Your task to perform on an android device: Open Yahoo.com Image 0: 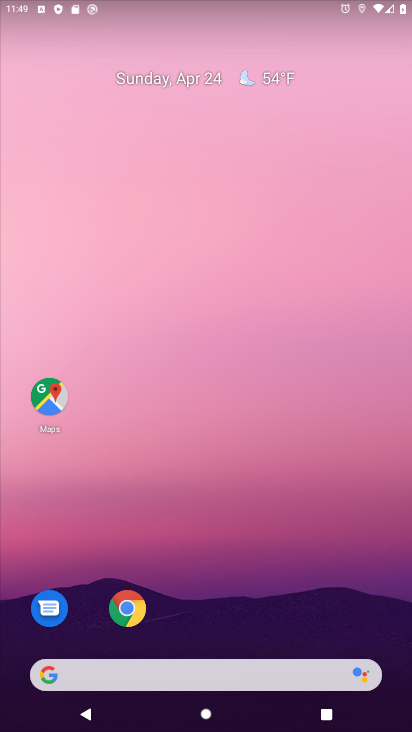
Step 0: click (127, 608)
Your task to perform on an android device: Open Yahoo.com Image 1: 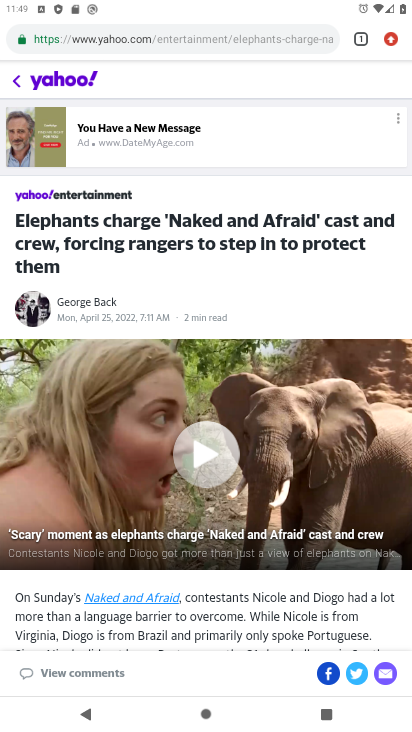
Step 1: task complete